Your task to perform on an android device: Check the news Image 0: 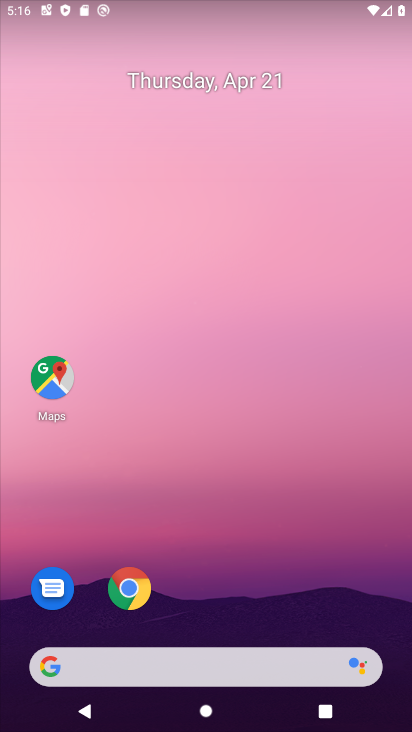
Step 0: click (167, 664)
Your task to perform on an android device: Check the news Image 1: 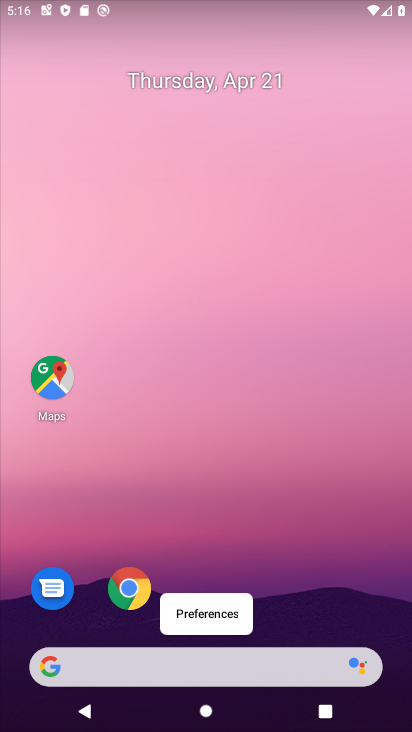
Step 1: click (165, 665)
Your task to perform on an android device: Check the news Image 2: 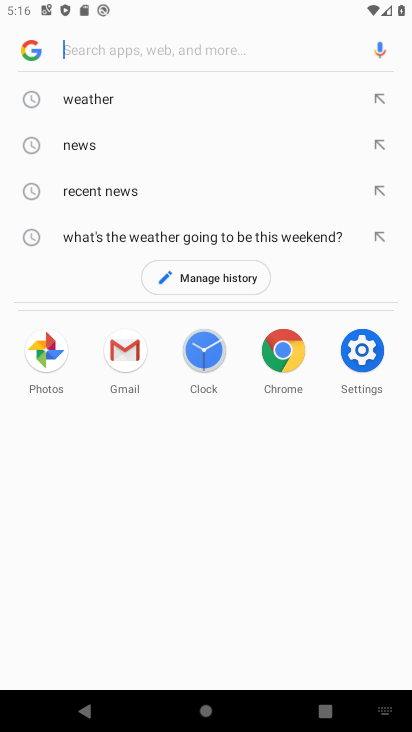
Step 2: click (66, 149)
Your task to perform on an android device: Check the news Image 3: 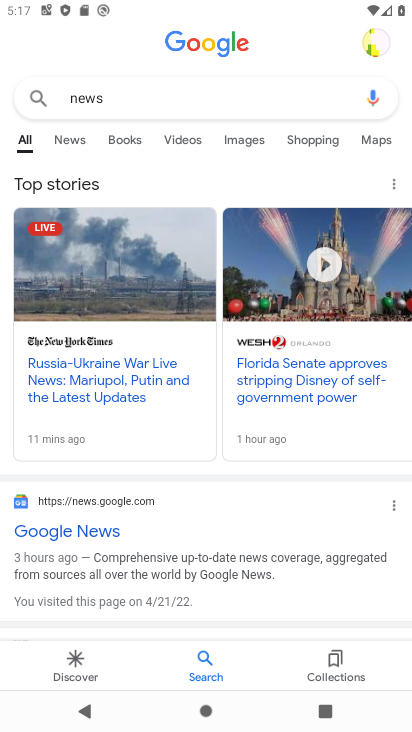
Step 3: task complete